Your task to perform on an android device: Search for vegetarian restaurants on Maps Image 0: 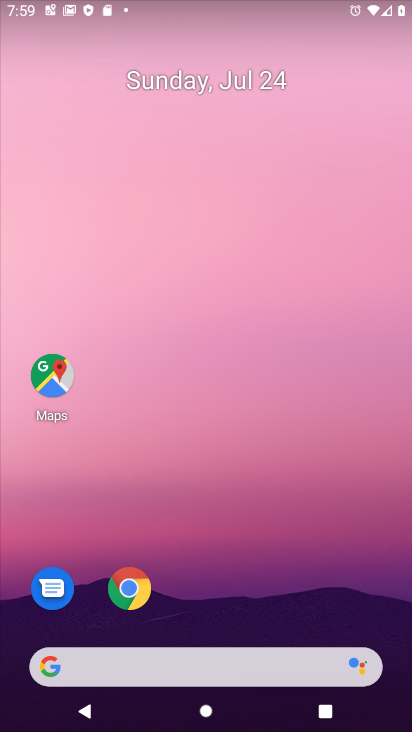
Step 0: drag from (329, 378) to (274, 7)
Your task to perform on an android device: Search for vegetarian restaurants on Maps Image 1: 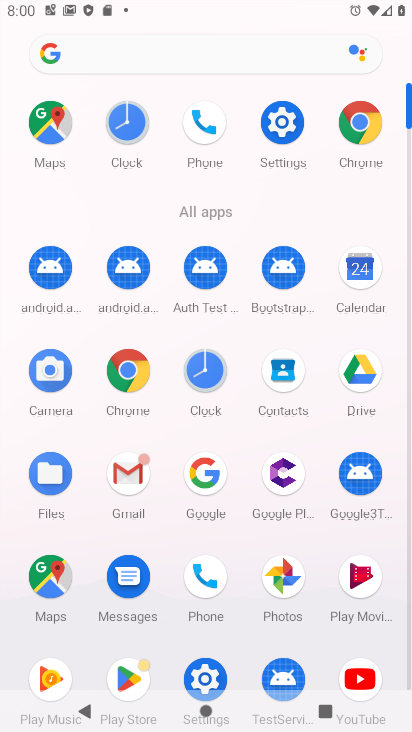
Step 1: click (53, 127)
Your task to perform on an android device: Search for vegetarian restaurants on Maps Image 2: 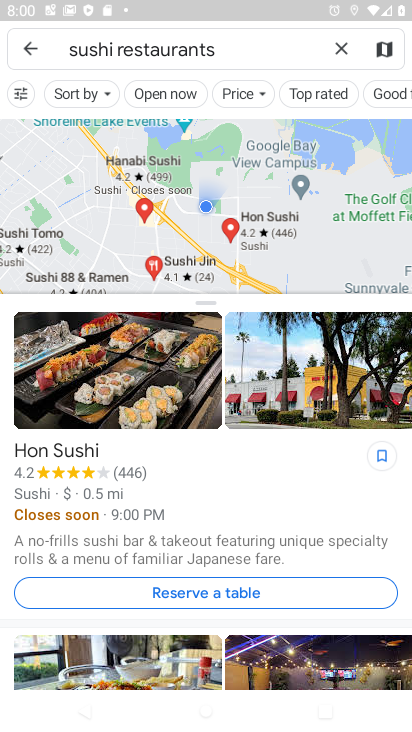
Step 2: click (345, 46)
Your task to perform on an android device: Search for vegetarian restaurants on Maps Image 3: 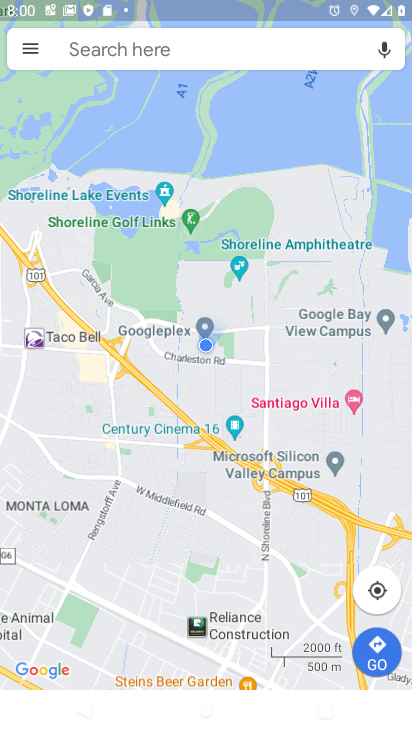
Step 3: click (315, 45)
Your task to perform on an android device: Search for vegetarian restaurants on Maps Image 4: 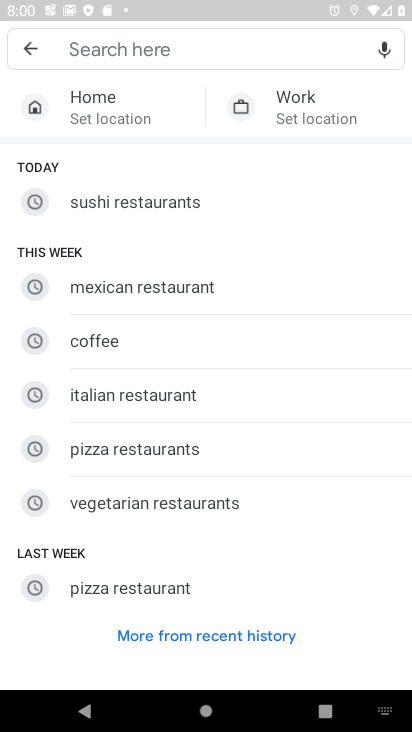
Step 4: click (145, 507)
Your task to perform on an android device: Search for vegetarian restaurants on Maps Image 5: 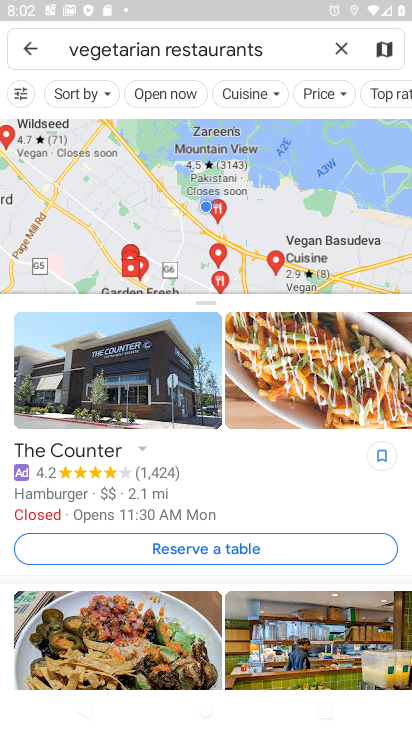
Step 5: task complete